Your task to perform on an android device: uninstall "Google Find My Device" Image 0: 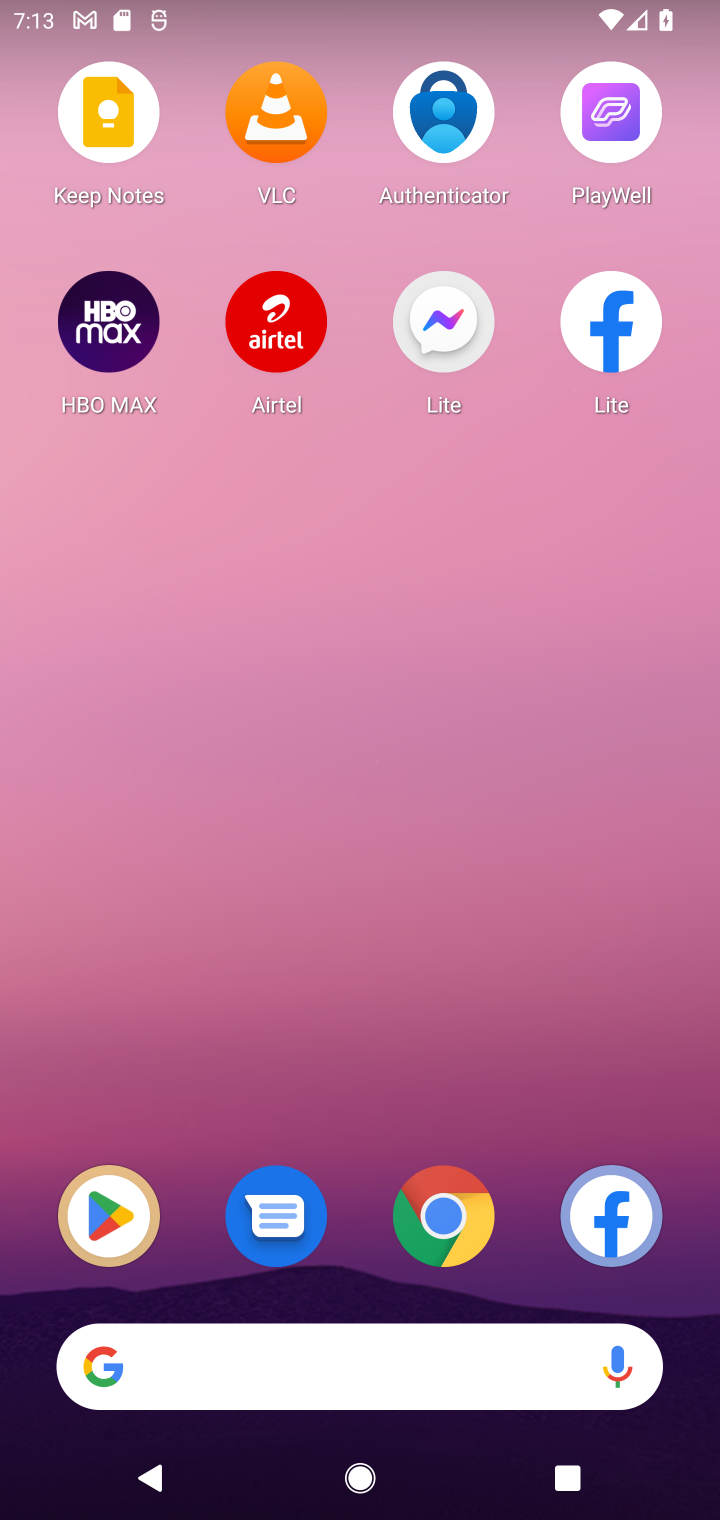
Step 0: press home button
Your task to perform on an android device: uninstall "Google Find My Device" Image 1: 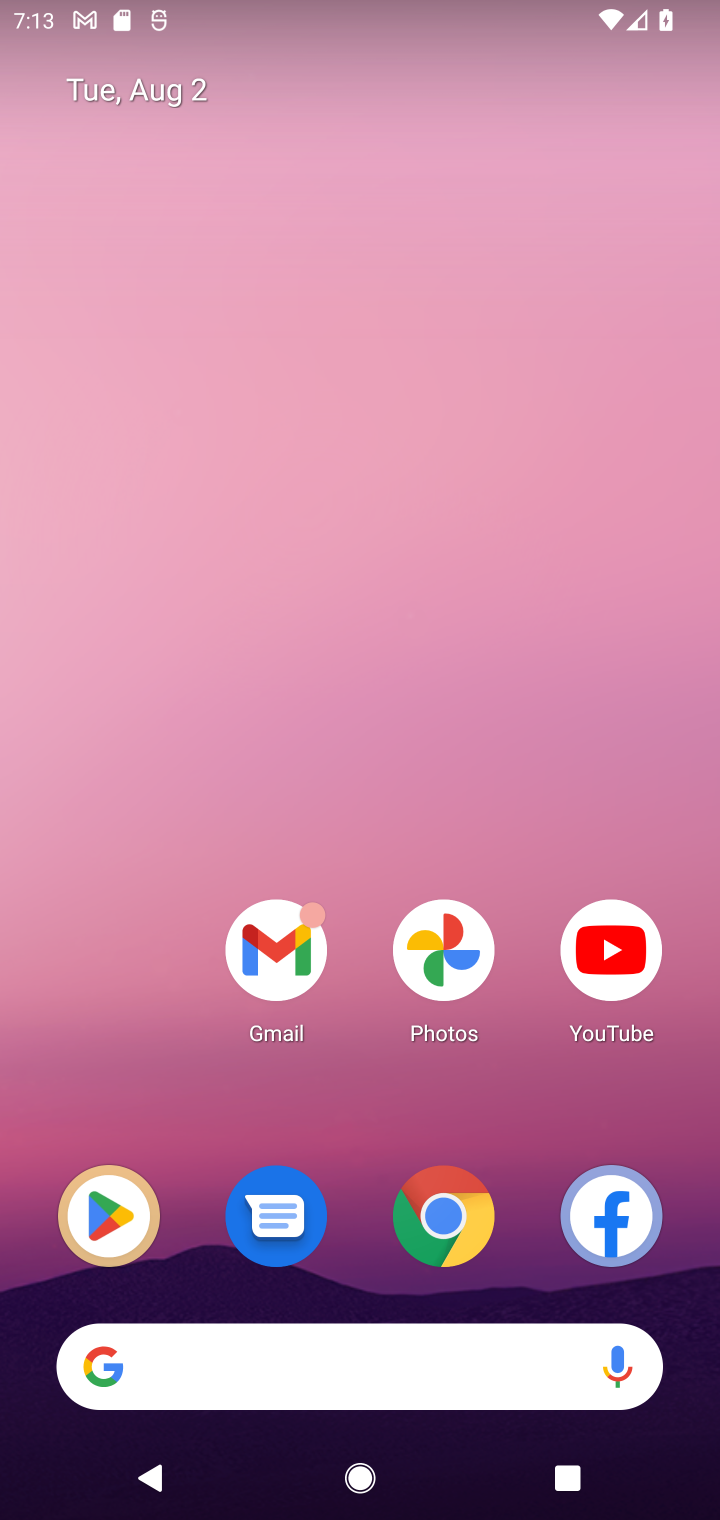
Step 1: click (107, 1221)
Your task to perform on an android device: uninstall "Google Find My Device" Image 2: 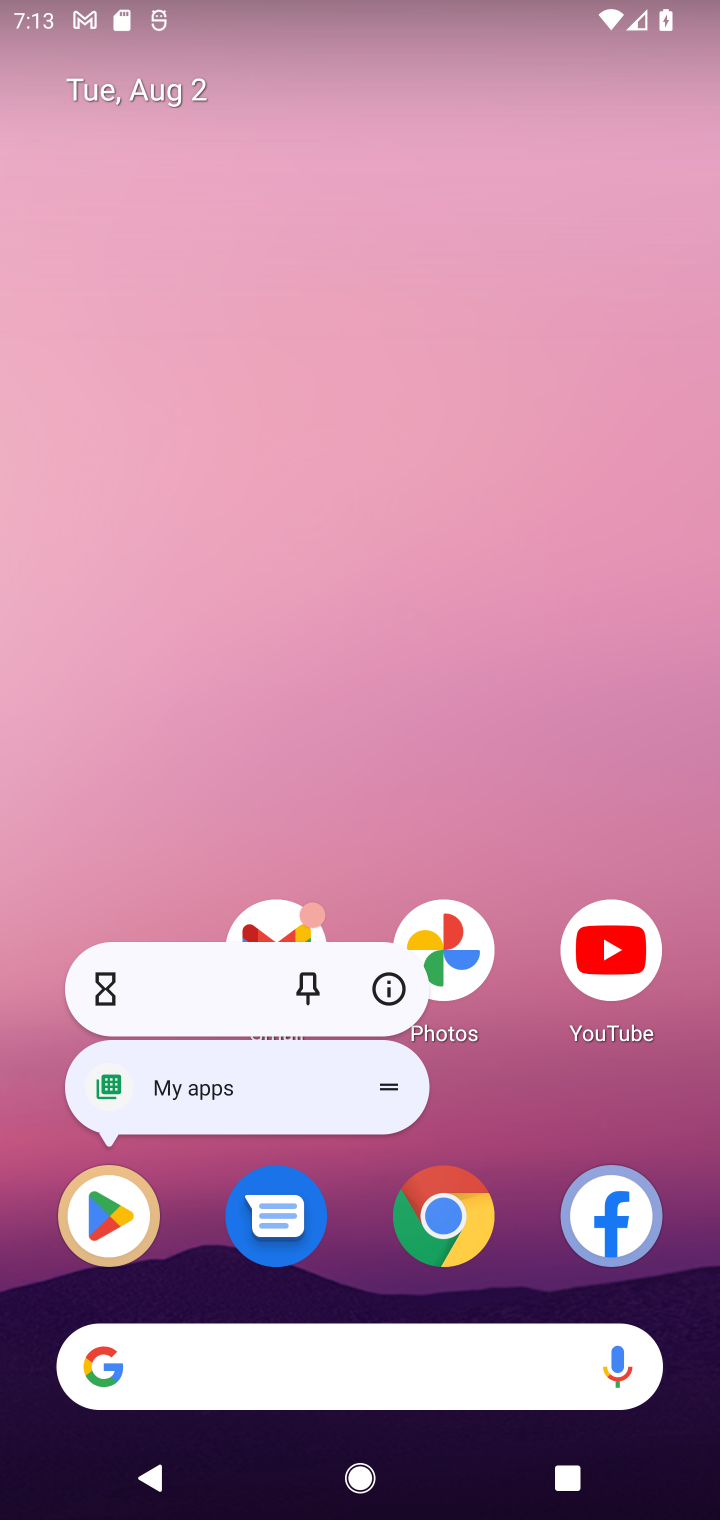
Step 2: click (115, 1216)
Your task to perform on an android device: uninstall "Google Find My Device" Image 3: 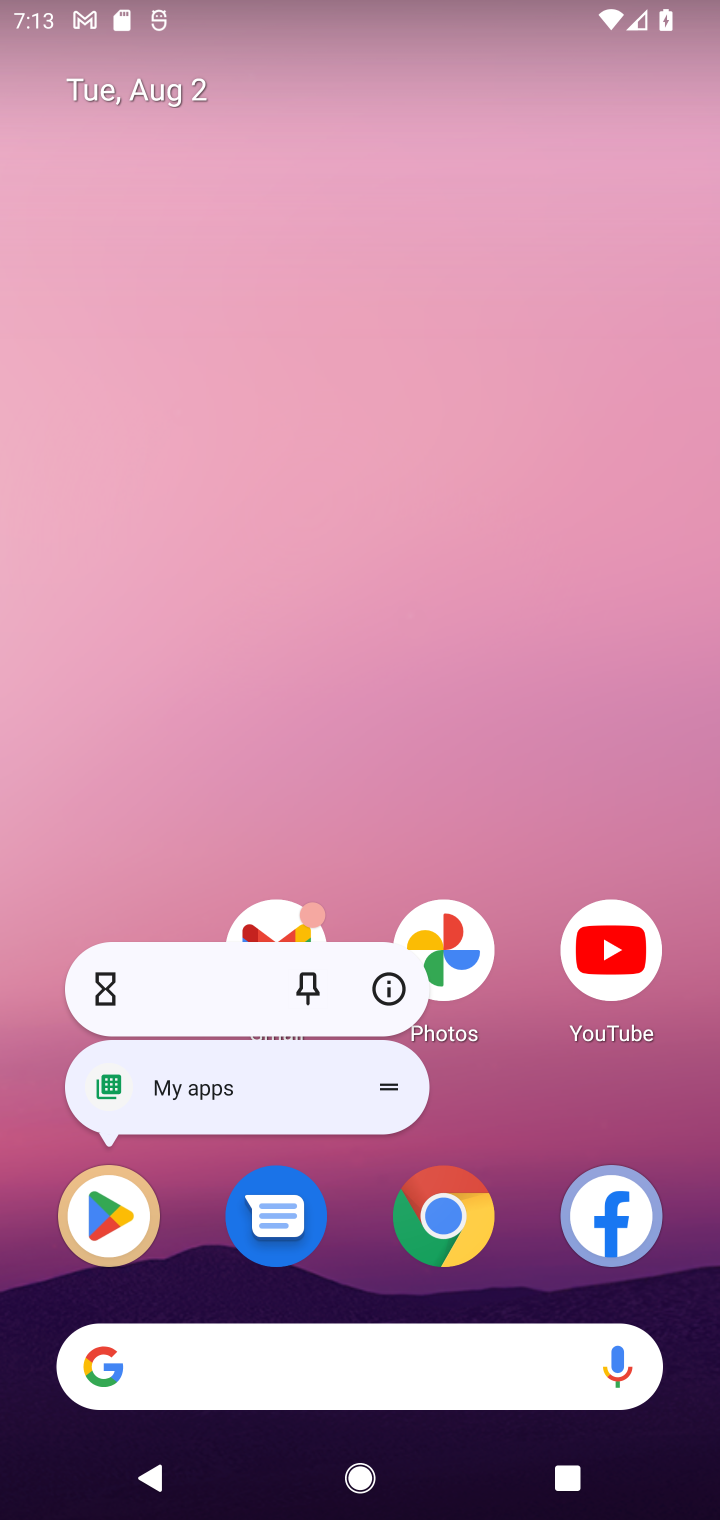
Step 3: click (115, 1217)
Your task to perform on an android device: uninstall "Google Find My Device" Image 4: 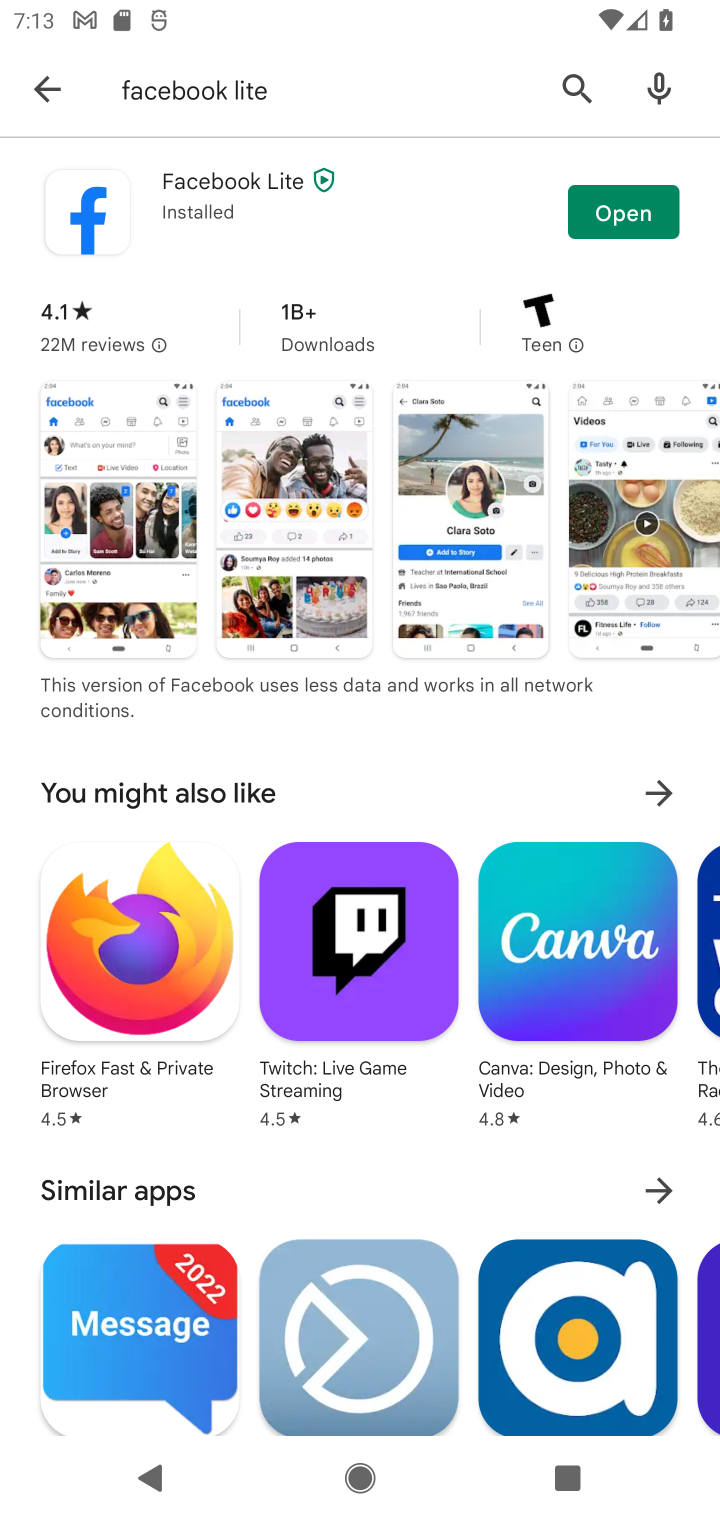
Step 4: click (572, 73)
Your task to perform on an android device: uninstall "Google Find My Device" Image 5: 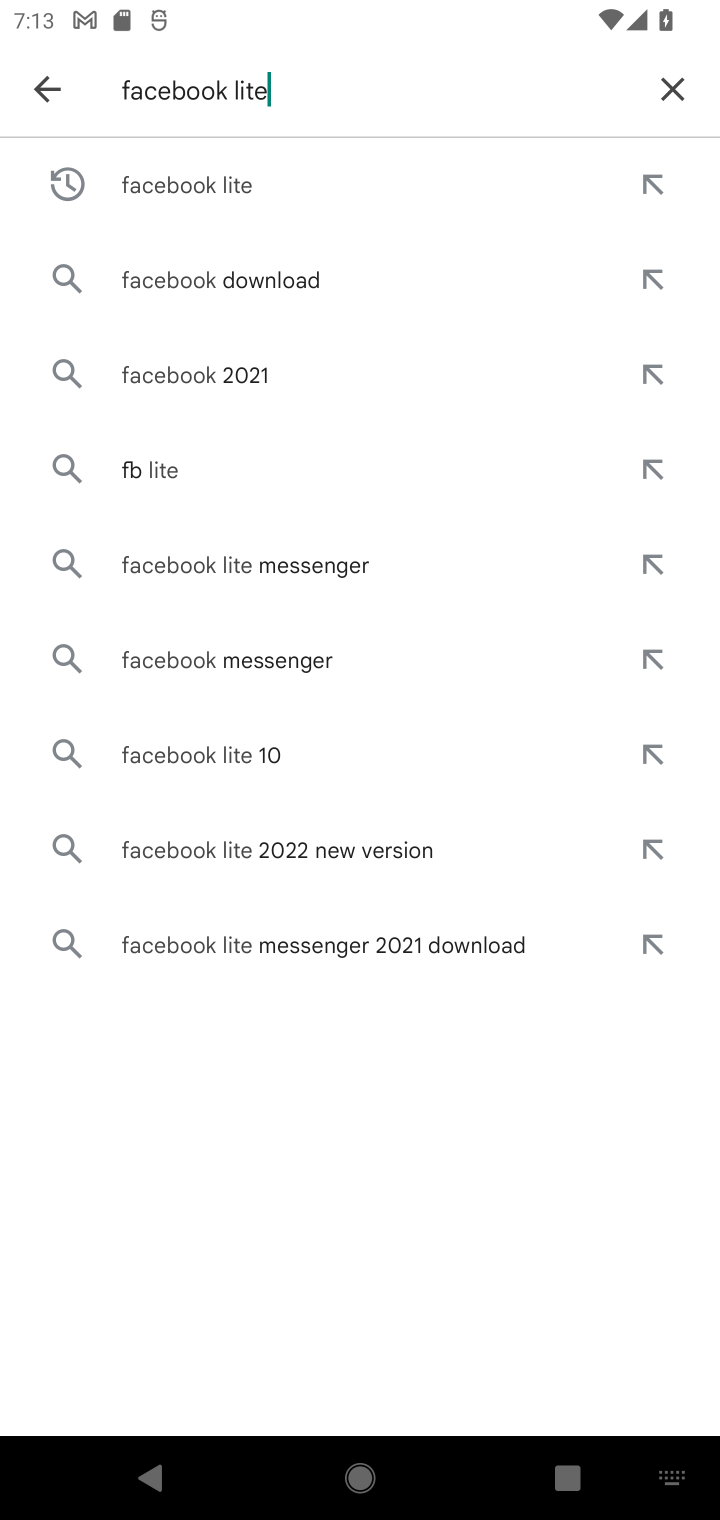
Step 5: click (674, 73)
Your task to perform on an android device: uninstall "Google Find My Device" Image 6: 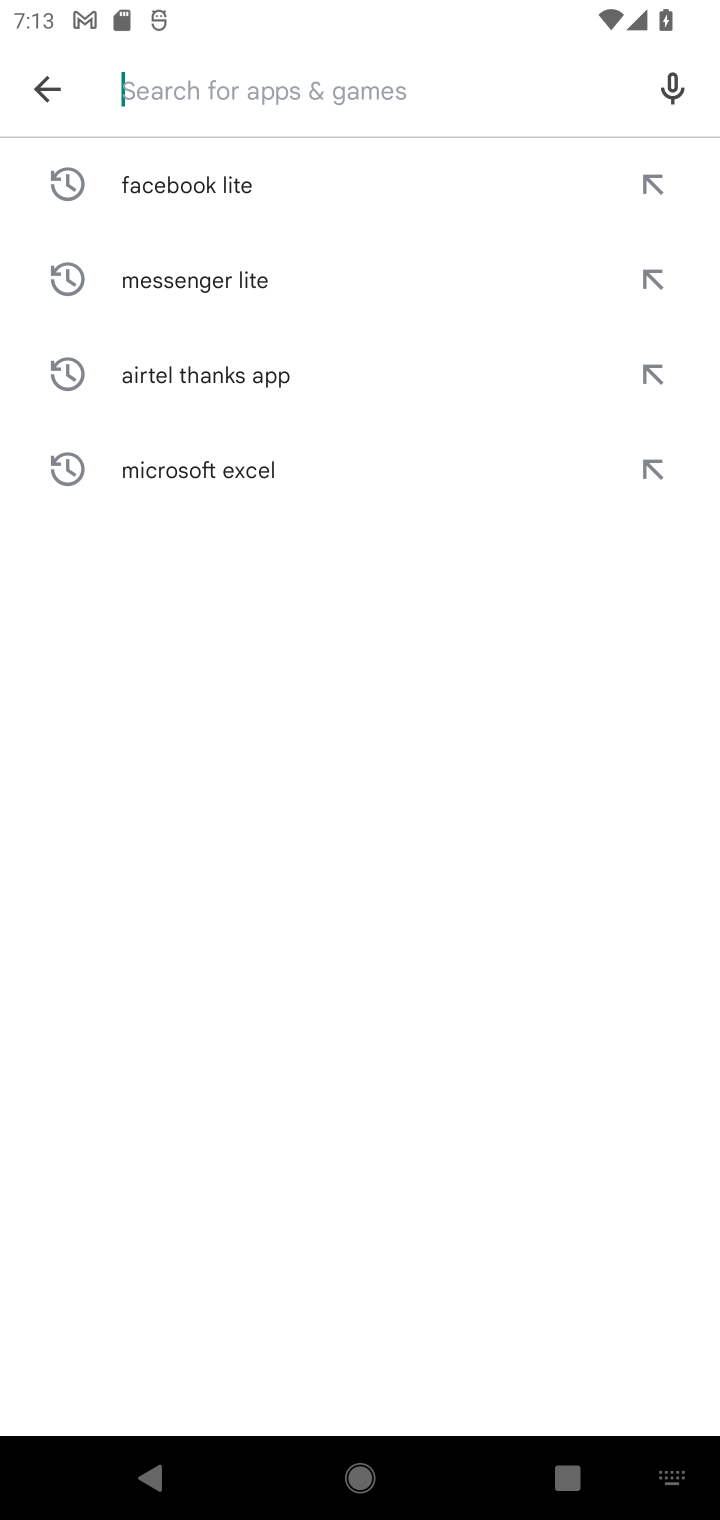
Step 6: type "Google Find My Device"
Your task to perform on an android device: uninstall "Google Find My Device" Image 7: 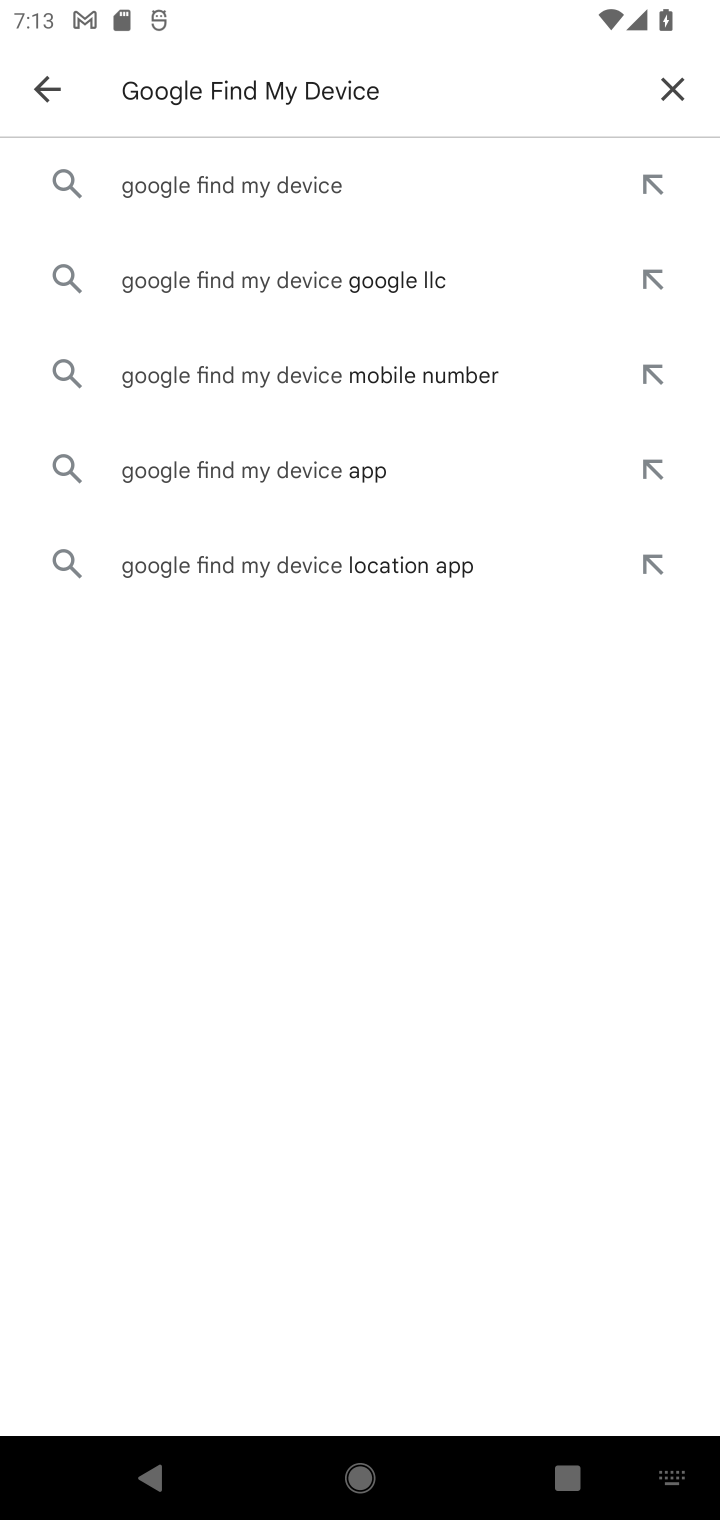
Step 7: click (288, 183)
Your task to perform on an android device: uninstall "Google Find My Device" Image 8: 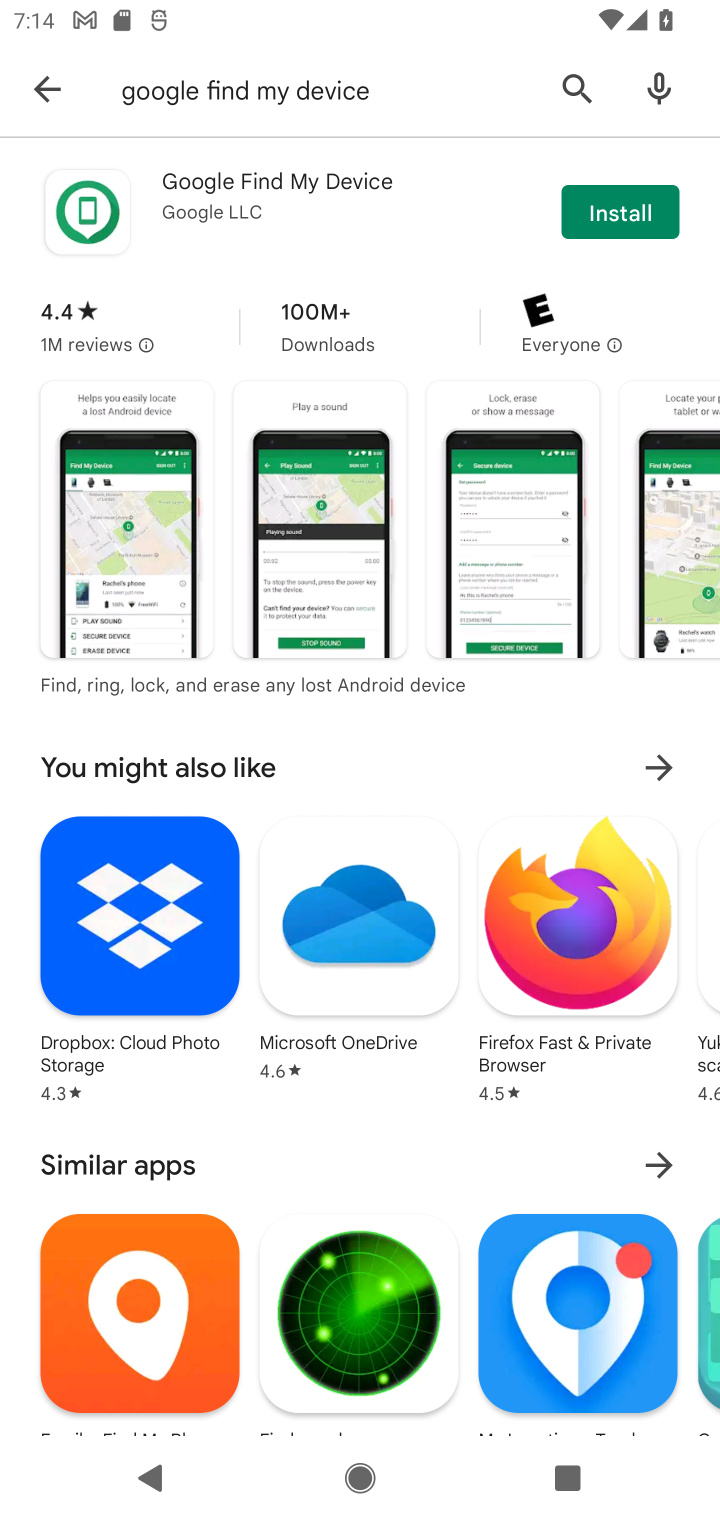
Step 8: task complete